Your task to perform on an android device: Open Google Maps Image 0: 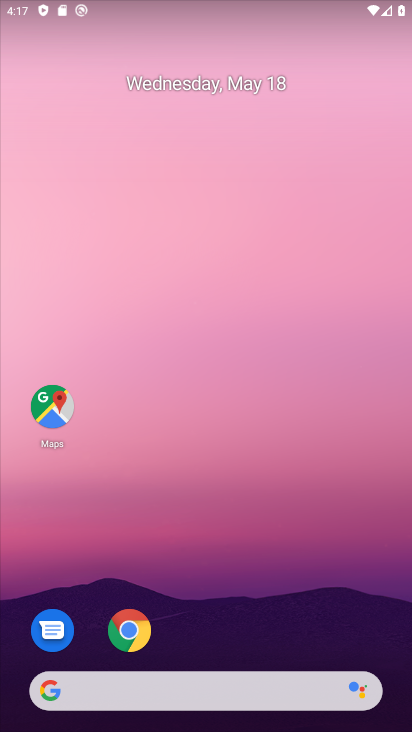
Step 0: drag from (226, 661) to (211, 39)
Your task to perform on an android device: Open Google Maps Image 1: 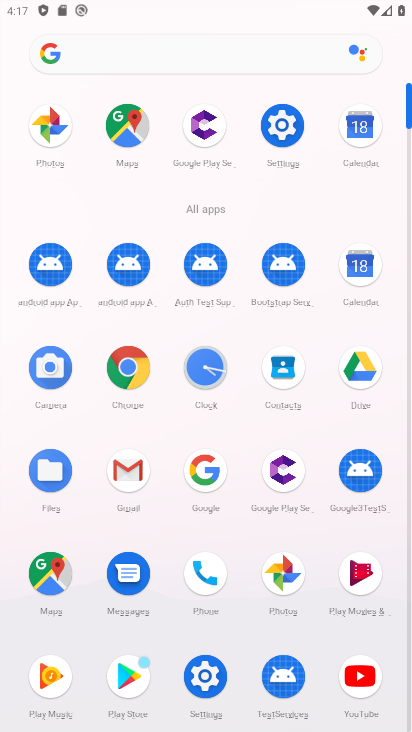
Step 1: click (55, 570)
Your task to perform on an android device: Open Google Maps Image 2: 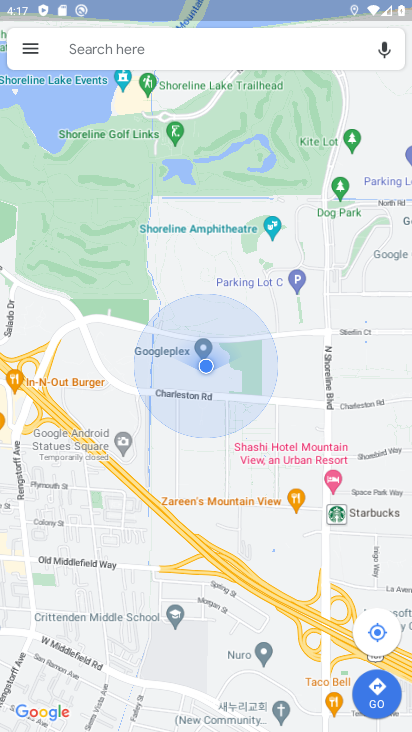
Step 2: task complete